Your task to perform on an android device: empty trash in the gmail app Image 0: 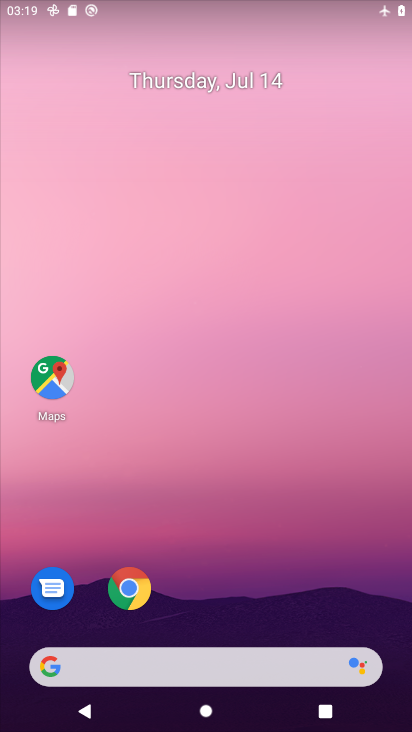
Step 0: drag from (284, 612) to (200, 154)
Your task to perform on an android device: empty trash in the gmail app Image 1: 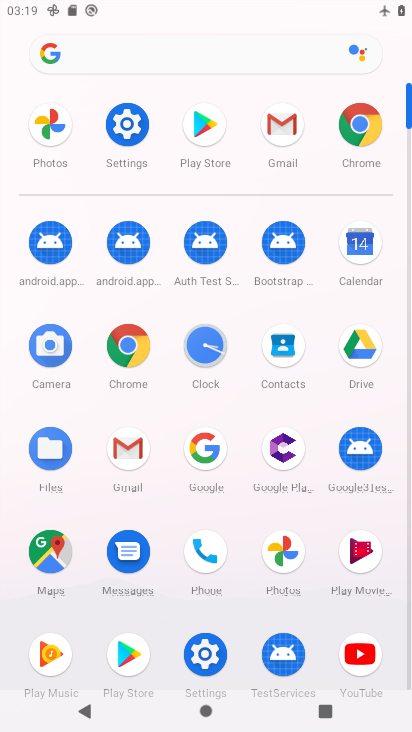
Step 1: click (281, 124)
Your task to perform on an android device: empty trash in the gmail app Image 2: 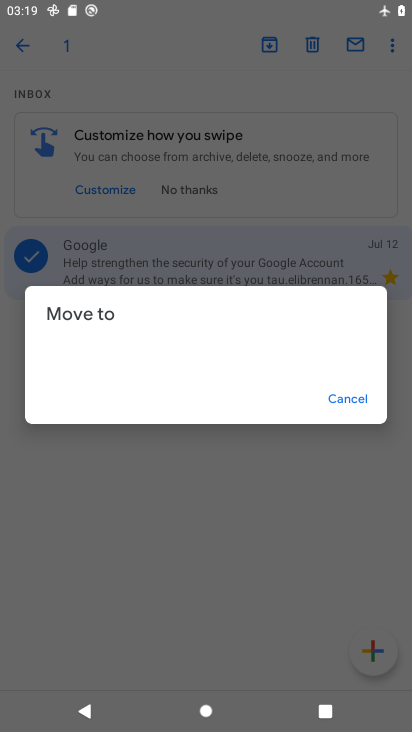
Step 2: click (357, 402)
Your task to perform on an android device: empty trash in the gmail app Image 3: 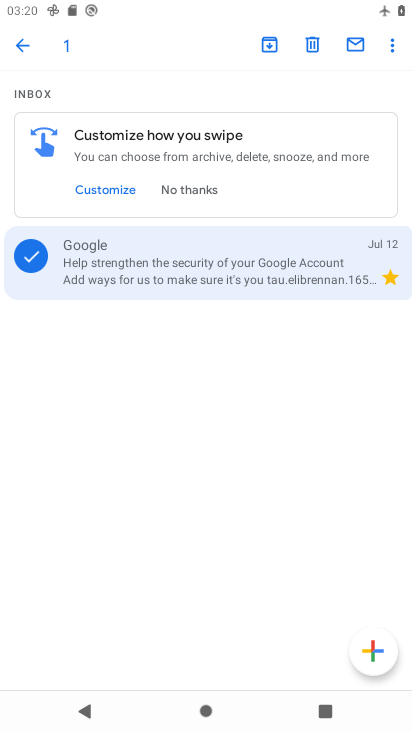
Step 3: click (20, 43)
Your task to perform on an android device: empty trash in the gmail app Image 4: 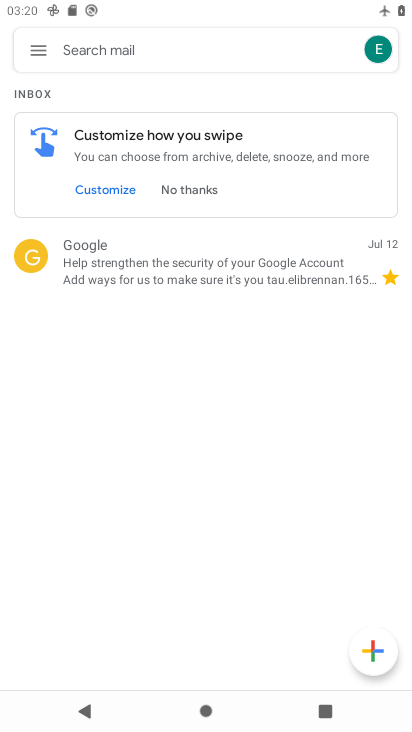
Step 4: click (28, 50)
Your task to perform on an android device: empty trash in the gmail app Image 5: 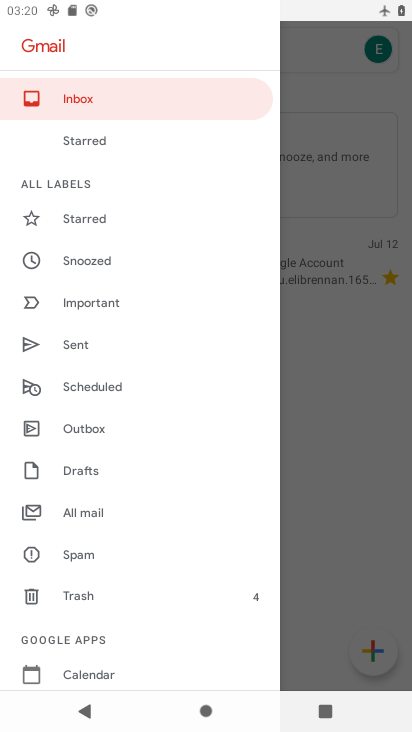
Step 5: click (78, 594)
Your task to perform on an android device: empty trash in the gmail app Image 6: 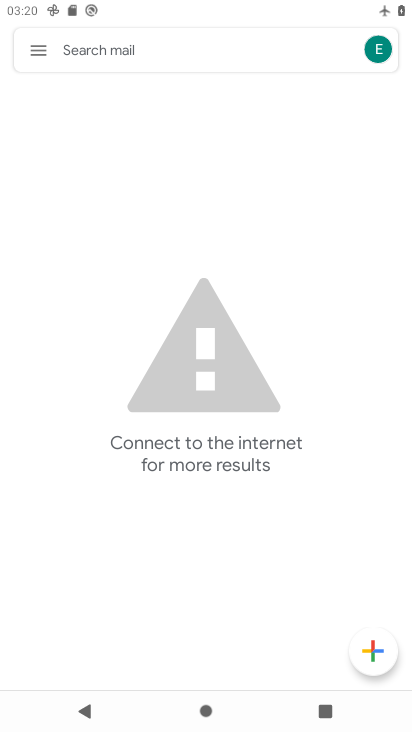
Step 6: task complete